Your task to perform on an android device: refresh tabs in the chrome app Image 0: 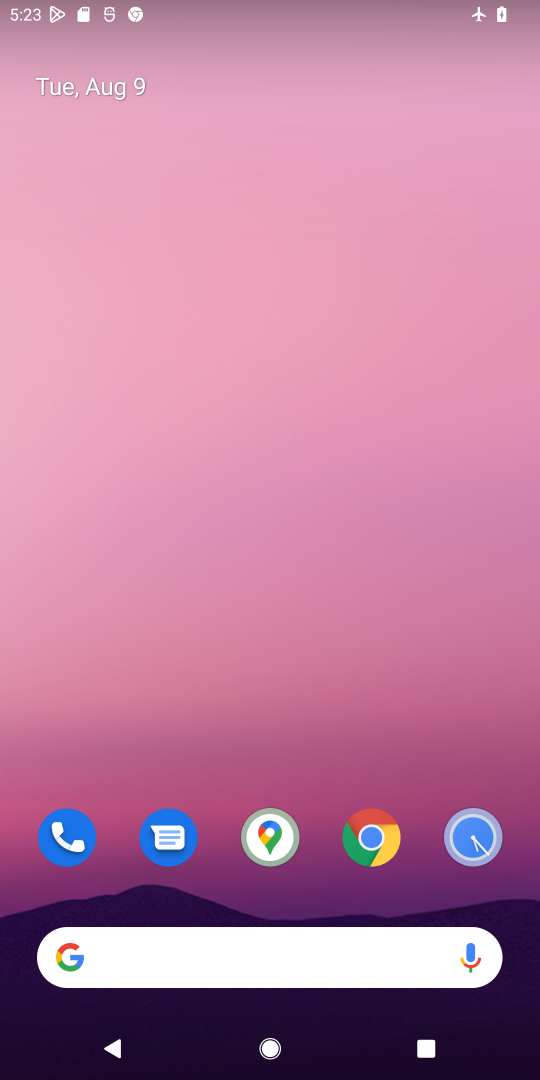
Step 0: drag from (209, 894) to (361, 106)
Your task to perform on an android device: refresh tabs in the chrome app Image 1: 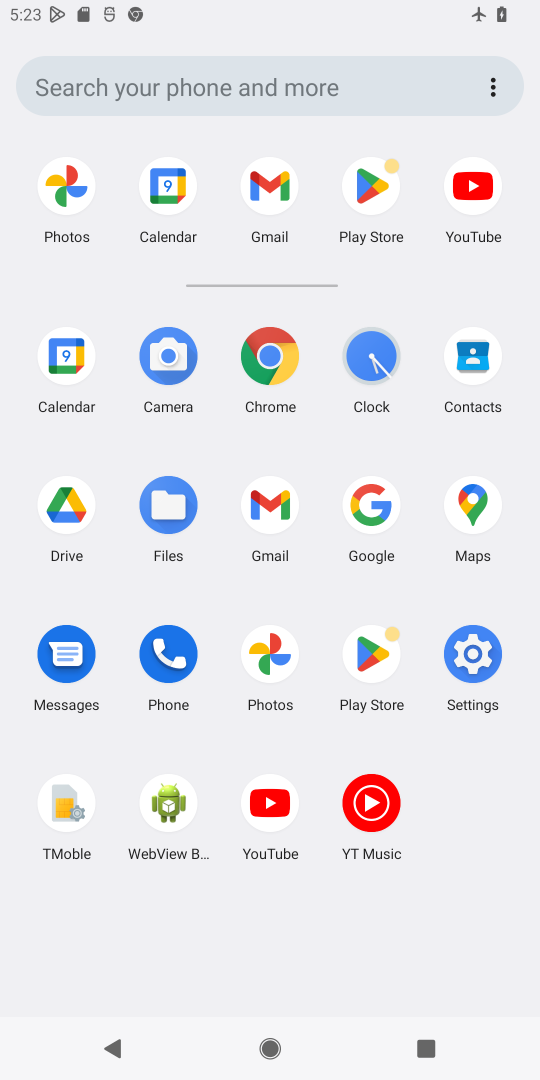
Step 1: click (275, 357)
Your task to perform on an android device: refresh tabs in the chrome app Image 2: 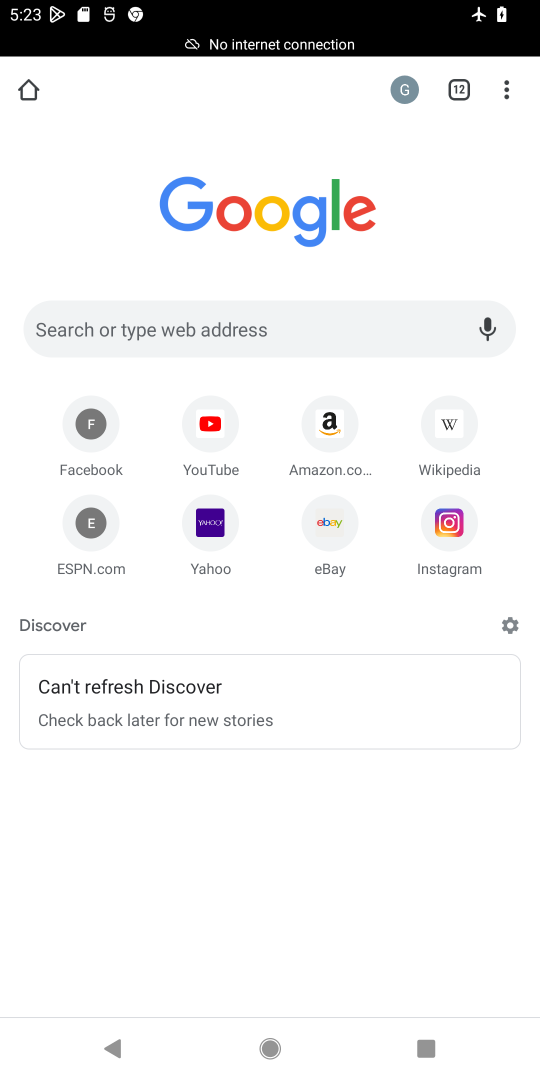
Step 2: click (519, 84)
Your task to perform on an android device: refresh tabs in the chrome app Image 3: 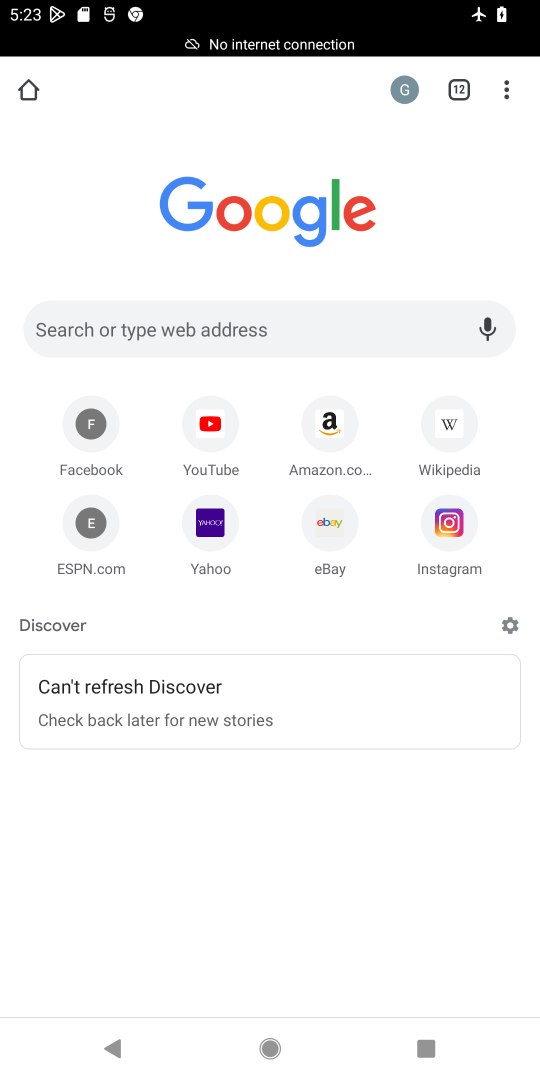
Step 3: click (500, 94)
Your task to perform on an android device: refresh tabs in the chrome app Image 4: 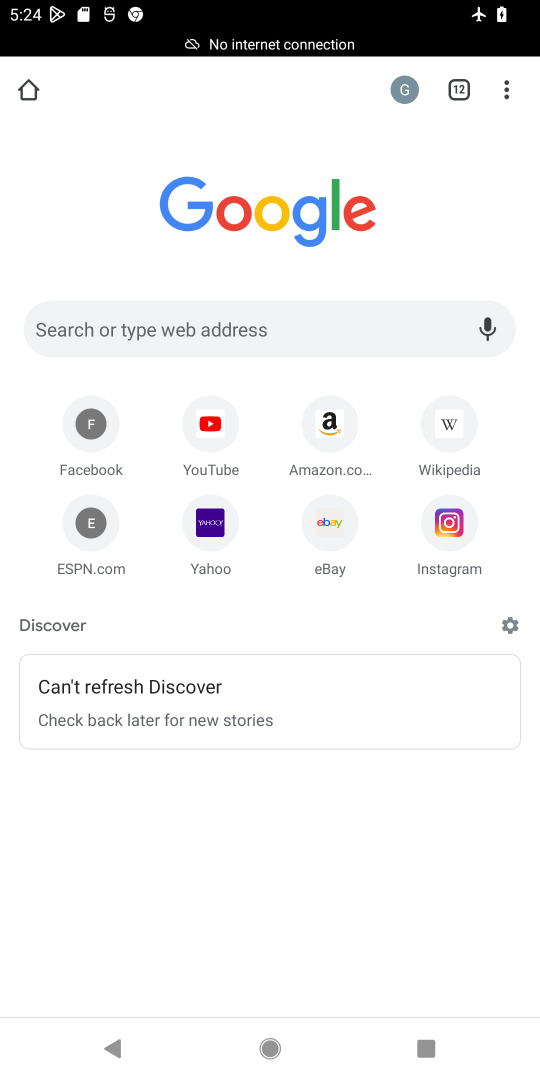
Step 4: click (517, 90)
Your task to perform on an android device: refresh tabs in the chrome app Image 5: 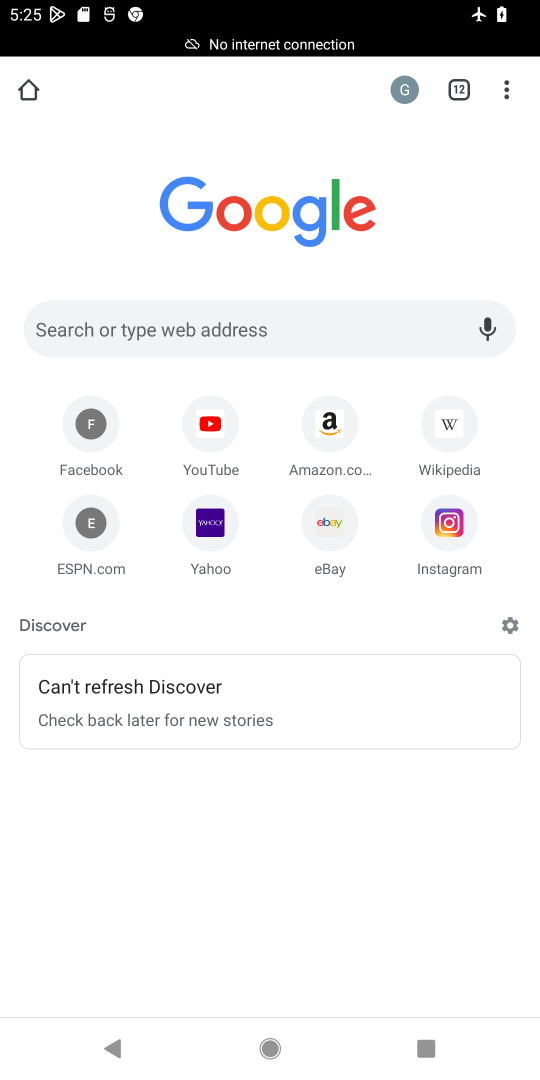
Step 5: click (521, 73)
Your task to perform on an android device: refresh tabs in the chrome app Image 6: 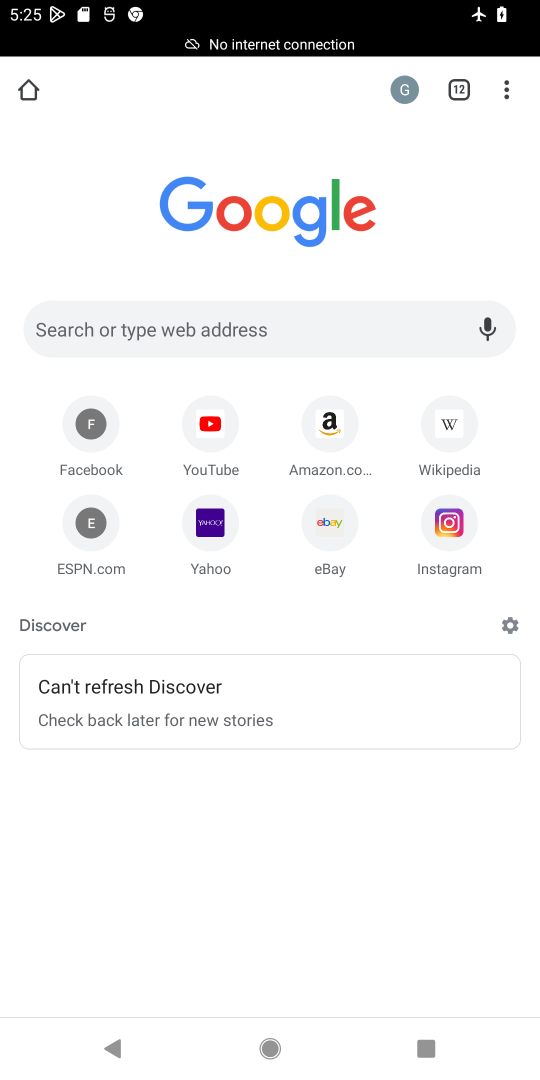
Step 6: click (480, 86)
Your task to perform on an android device: refresh tabs in the chrome app Image 7: 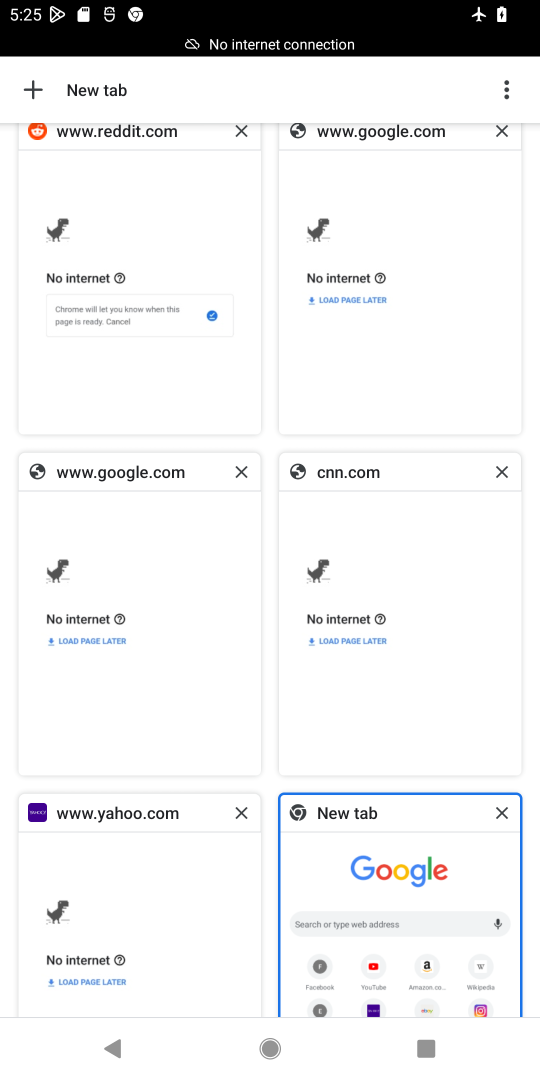
Step 7: click (514, 83)
Your task to perform on an android device: refresh tabs in the chrome app Image 8: 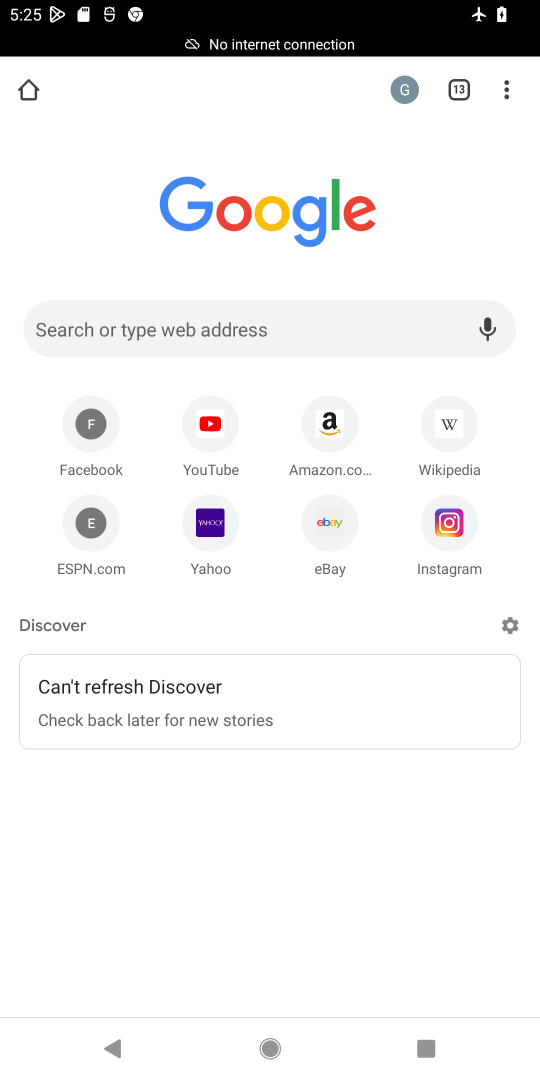
Step 8: task complete